Your task to perform on an android device: Show me productivity apps on the Play Store Image 0: 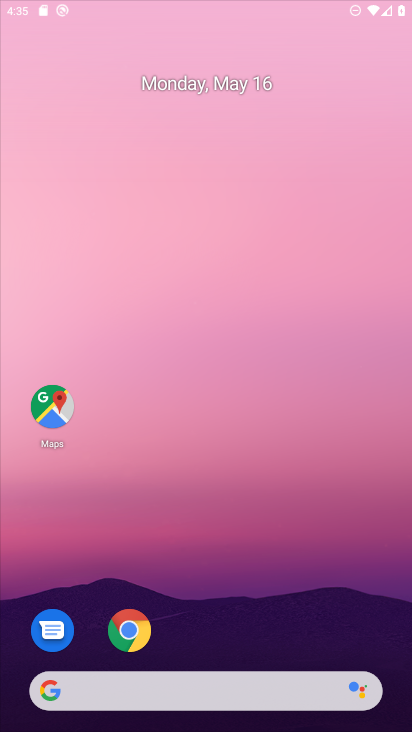
Step 0: press home button
Your task to perform on an android device: Show me productivity apps on the Play Store Image 1: 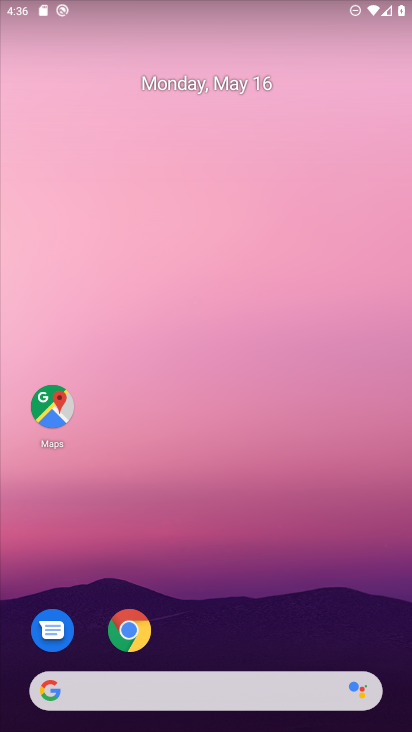
Step 1: drag from (295, 652) to (377, 3)
Your task to perform on an android device: Show me productivity apps on the Play Store Image 2: 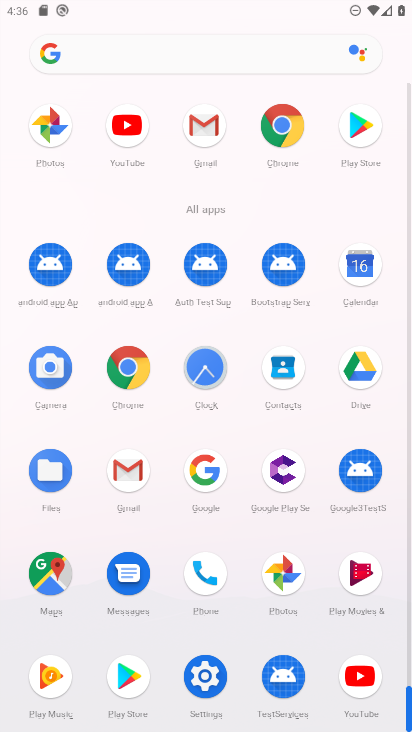
Step 2: click (142, 671)
Your task to perform on an android device: Show me productivity apps on the Play Store Image 3: 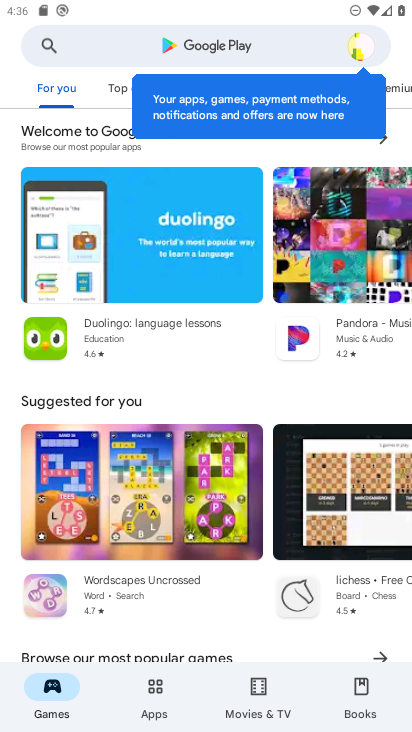
Step 3: click (158, 58)
Your task to perform on an android device: Show me productivity apps on the Play Store Image 4: 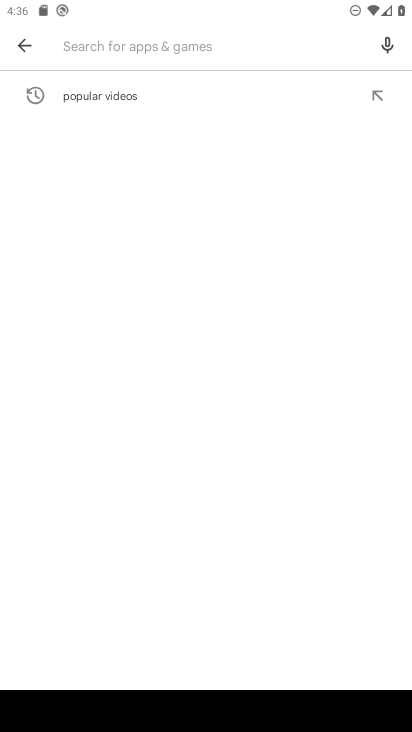
Step 4: type " productivity apps"
Your task to perform on an android device: Show me productivity apps on the Play Store Image 5: 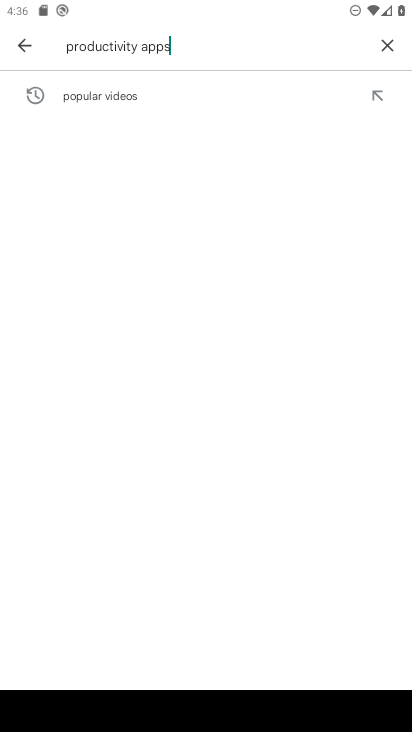
Step 5: type ""
Your task to perform on an android device: Show me productivity apps on the Play Store Image 6: 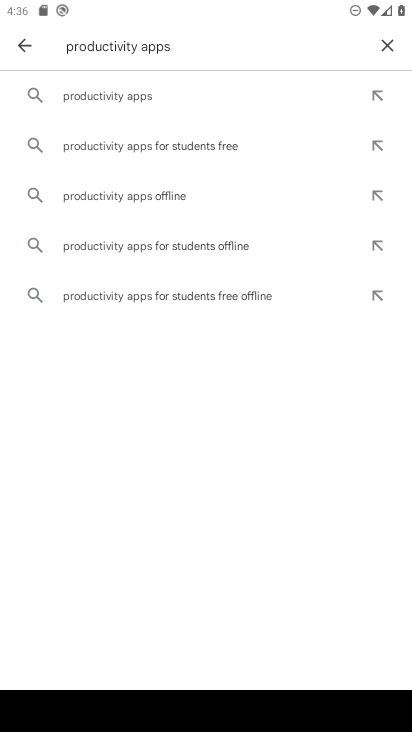
Step 6: click (131, 99)
Your task to perform on an android device: Show me productivity apps on the Play Store Image 7: 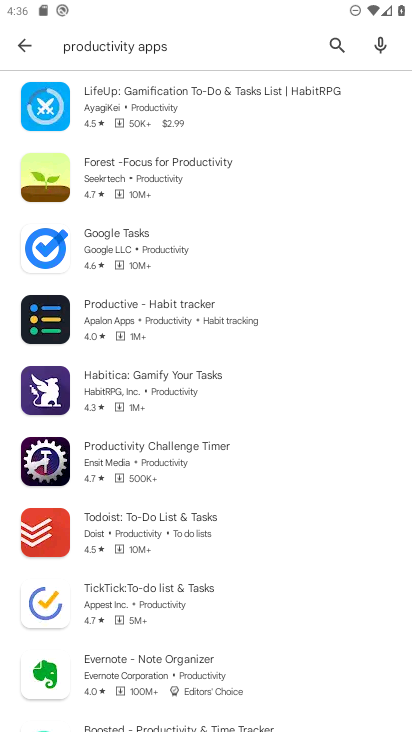
Step 7: task complete